Your task to perform on an android device: turn off notifications settings in the gmail app Image 0: 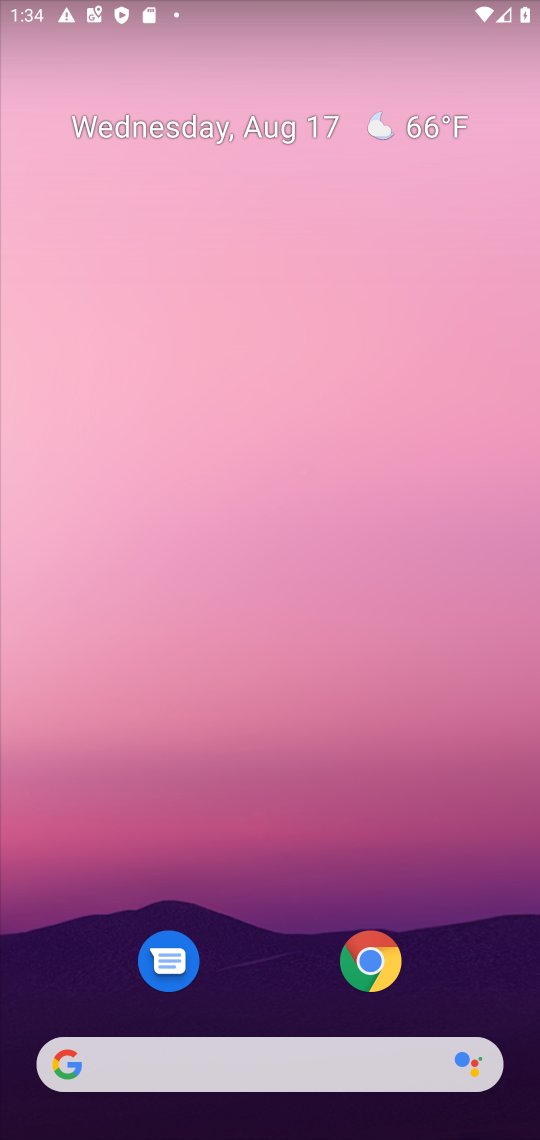
Step 0: drag from (269, 817) to (349, 162)
Your task to perform on an android device: turn off notifications settings in the gmail app Image 1: 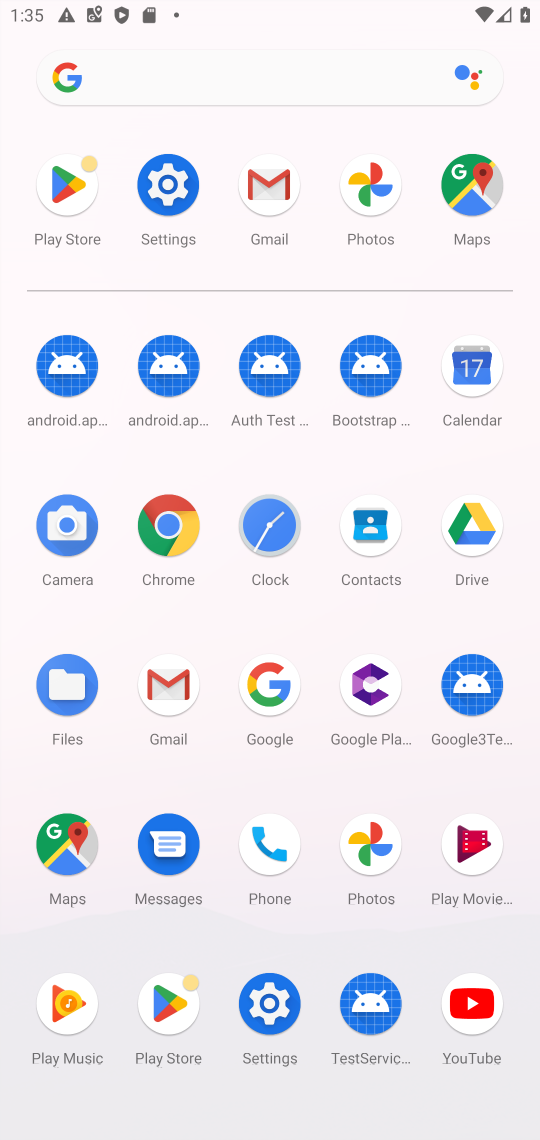
Step 1: click (194, 212)
Your task to perform on an android device: turn off notifications settings in the gmail app Image 2: 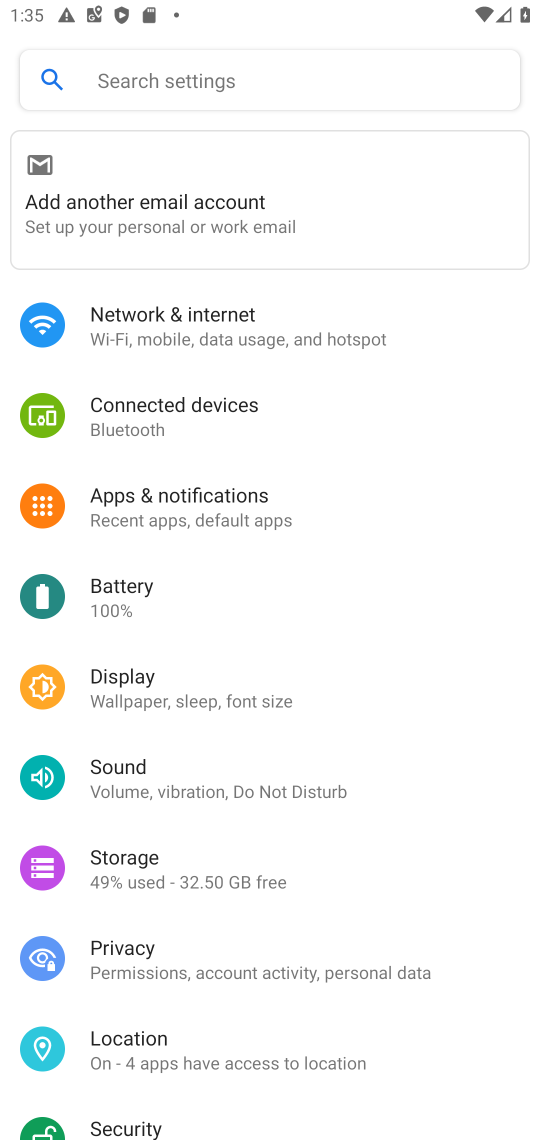
Step 2: press home button
Your task to perform on an android device: turn off notifications settings in the gmail app Image 3: 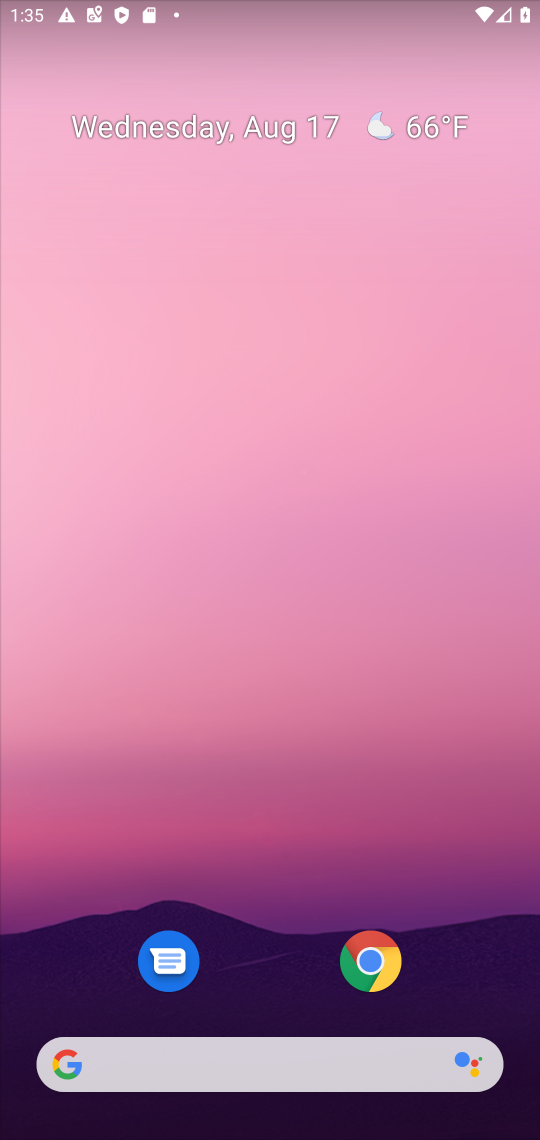
Step 3: drag from (279, 645) to (302, 131)
Your task to perform on an android device: turn off notifications settings in the gmail app Image 4: 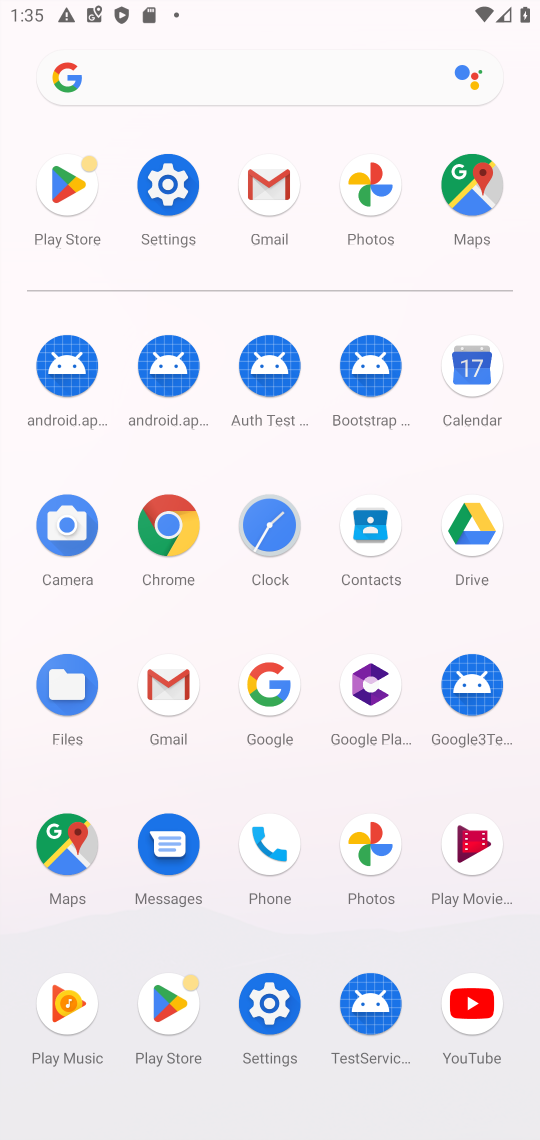
Step 4: click (175, 703)
Your task to perform on an android device: turn off notifications settings in the gmail app Image 5: 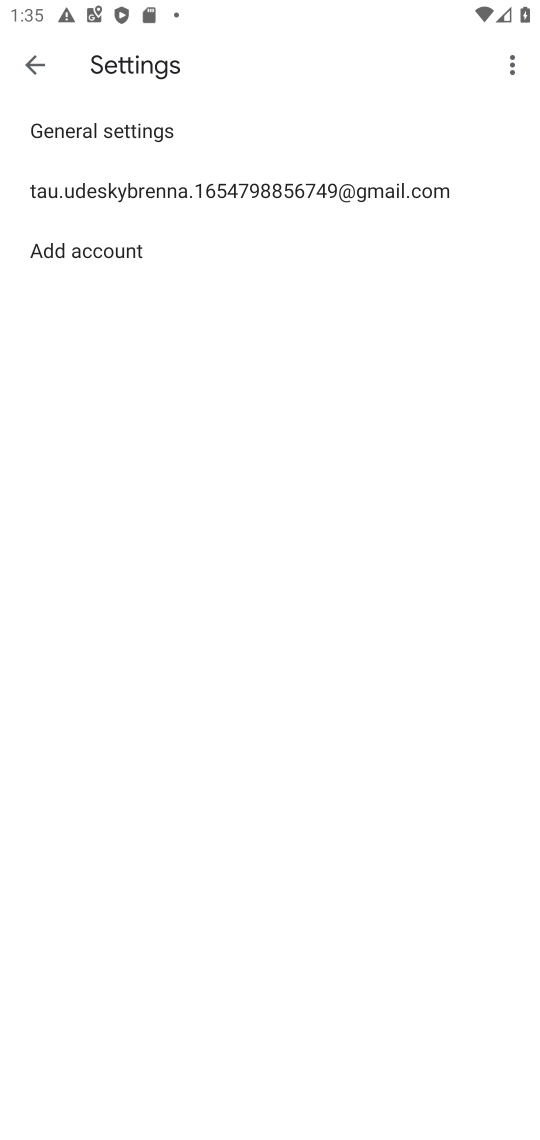
Step 5: click (120, 123)
Your task to perform on an android device: turn off notifications settings in the gmail app Image 6: 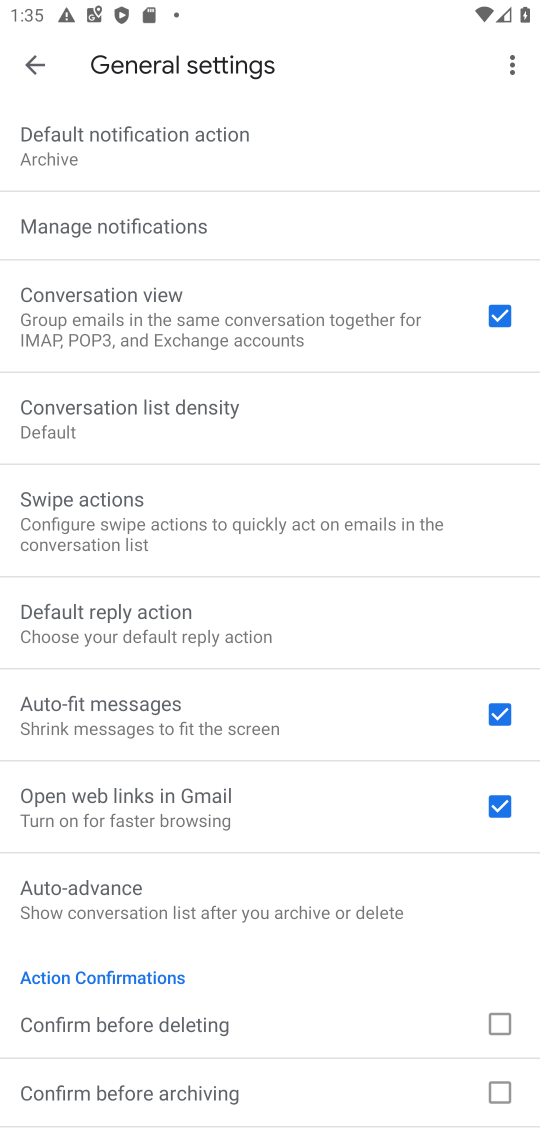
Step 6: click (156, 224)
Your task to perform on an android device: turn off notifications settings in the gmail app Image 7: 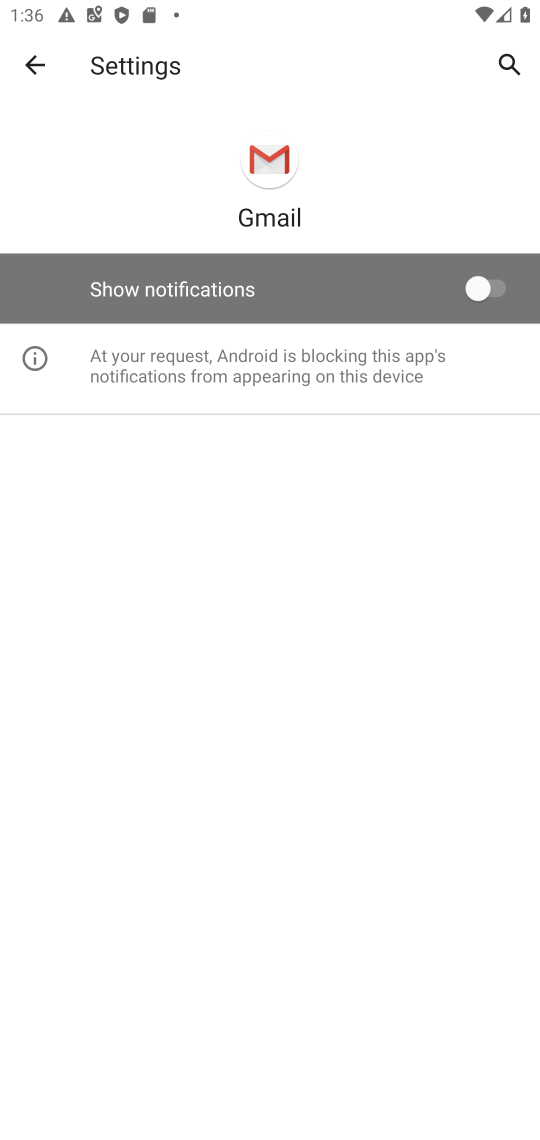
Step 7: task complete